Your task to perform on an android device: Open Amazon Image 0: 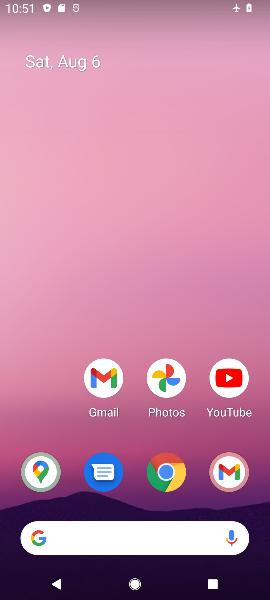
Step 0: press back button
Your task to perform on an android device: Open Amazon Image 1: 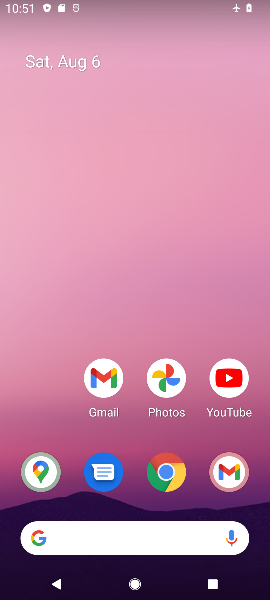
Step 1: drag from (179, 513) to (109, 254)
Your task to perform on an android device: Open Amazon Image 2: 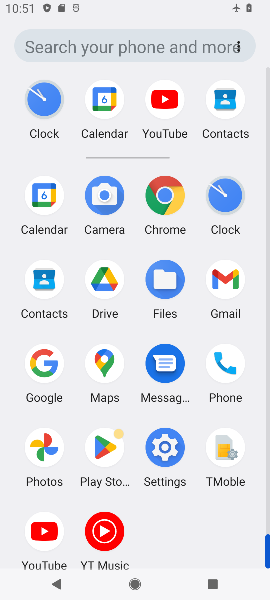
Step 2: click (172, 197)
Your task to perform on an android device: Open Amazon Image 3: 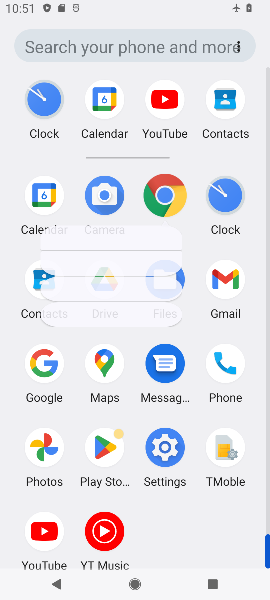
Step 3: click (172, 197)
Your task to perform on an android device: Open Amazon Image 4: 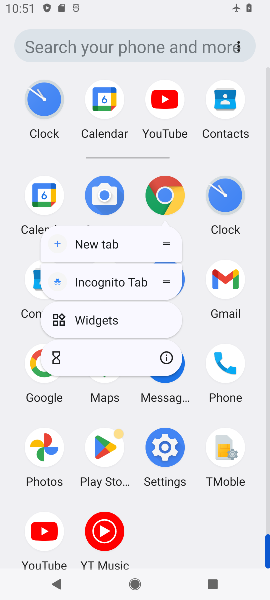
Step 4: click (173, 196)
Your task to perform on an android device: Open Amazon Image 5: 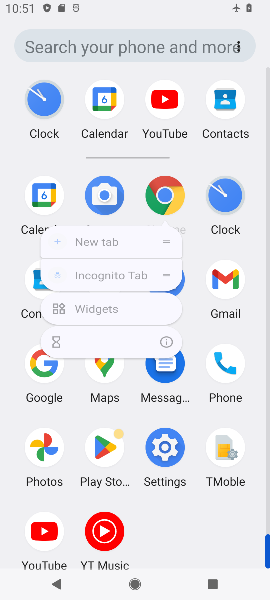
Step 5: click (173, 196)
Your task to perform on an android device: Open Amazon Image 6: 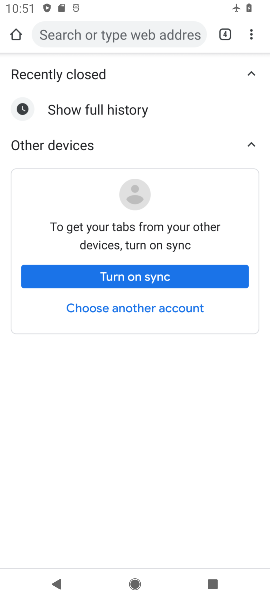
Step 6: click (172, 200)
Your task to perform on an android device: Open Amazon Image 7: 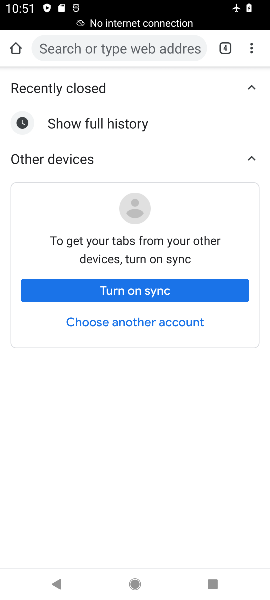
Step 7: drag from (254, 49) to (139, 134)
Your task to perform on an android device: Open Amazon Image 8: 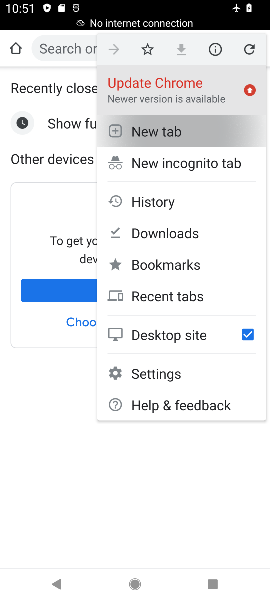
Step 8: click (142, 137)
Your task to perform on an android device: Open Amazon Image 9: 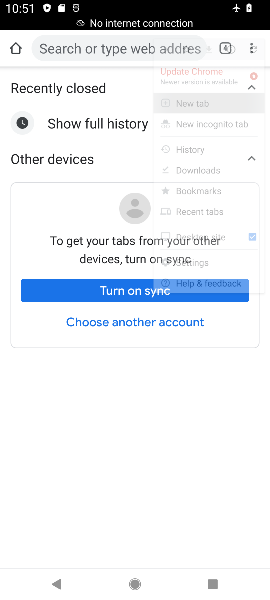
Step 9: click (142, 137)
Your task to perform on an android device: Open Amazon Image 10: 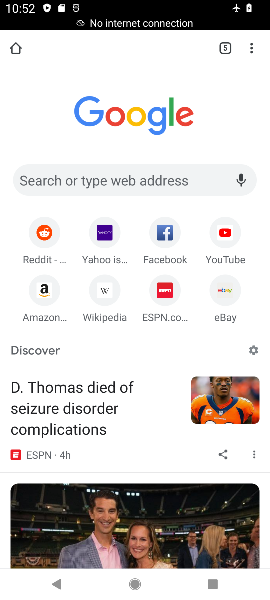
Step 10: click (39, 290)
Your task to perform on an android device: Open Amazon Image 11: 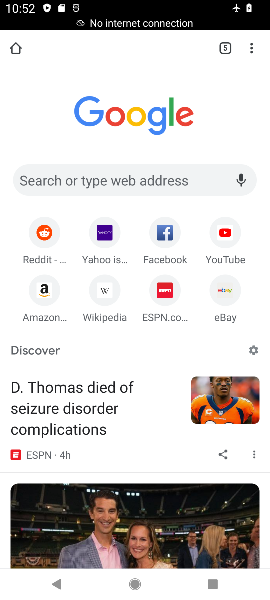
Step 11: click (37, 289)
Your task to perform on an android device: Open Amazon Image 12: 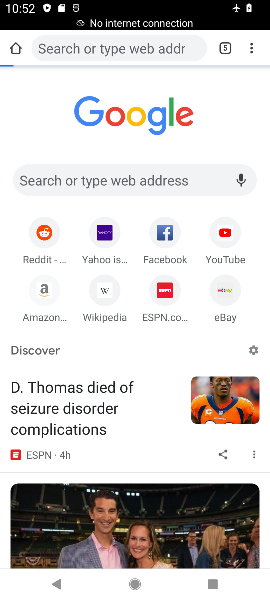
Step 12: click (37, 289)
Your task to perform on an android device: Open Amazon Image 13: 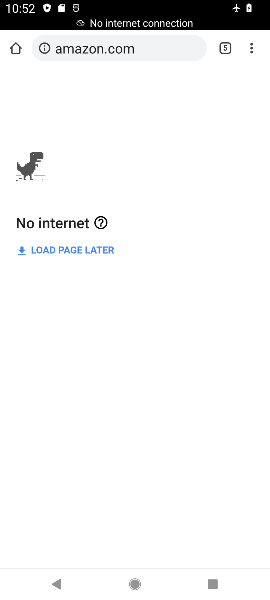
Step 13: task complete